Your task to perform on an android device: delete location history Image 0: 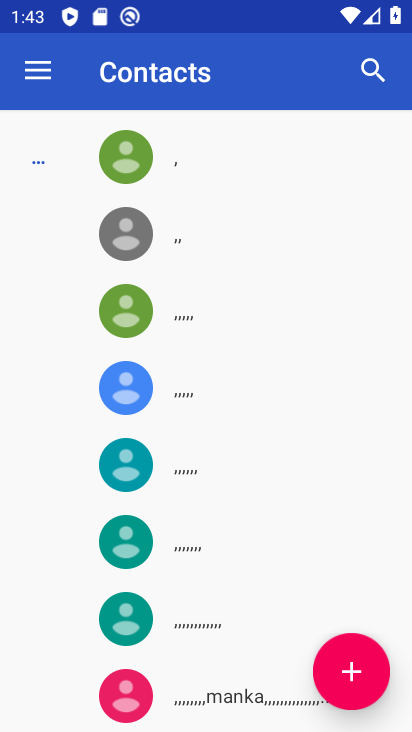
Step 0: press home button
Your task to perform on an android device: delete location history Image 1: 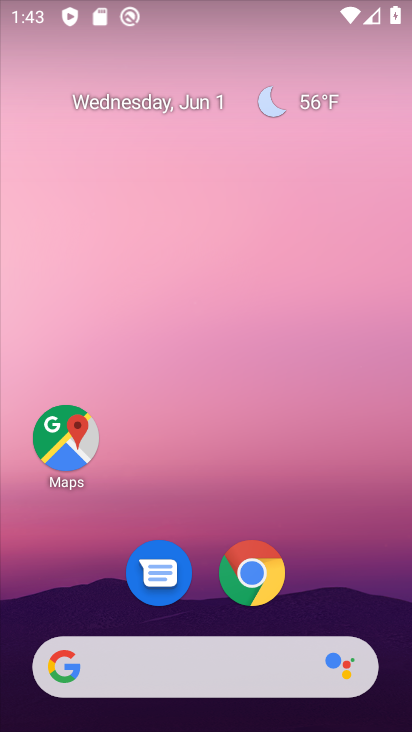
Step 1: drag from (333, 473) to (257, 55)
Your task to perform on an android device: delete location history Image 2: 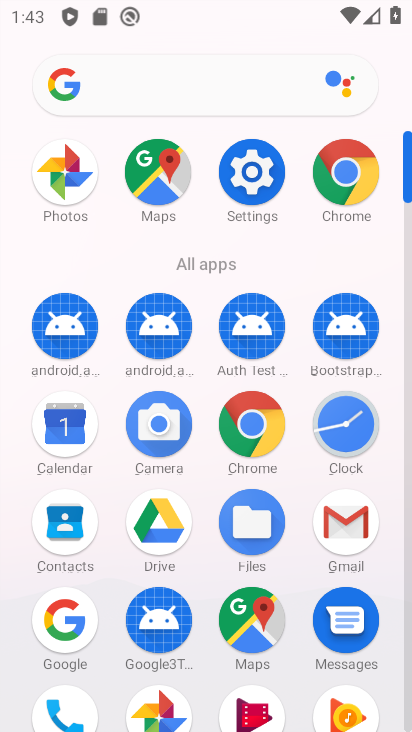
Step 2: click (145, 169)
Your task to perform on an android device: delete location history Image 3: 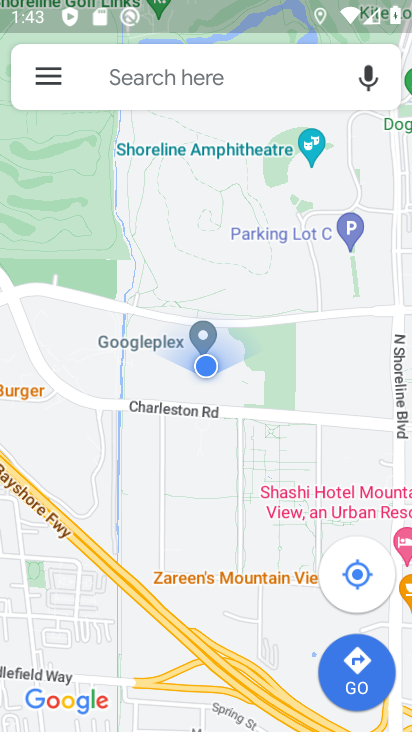
Step 3: click (59, 88)
Your task to perform on an android device: delete location history Image 4: 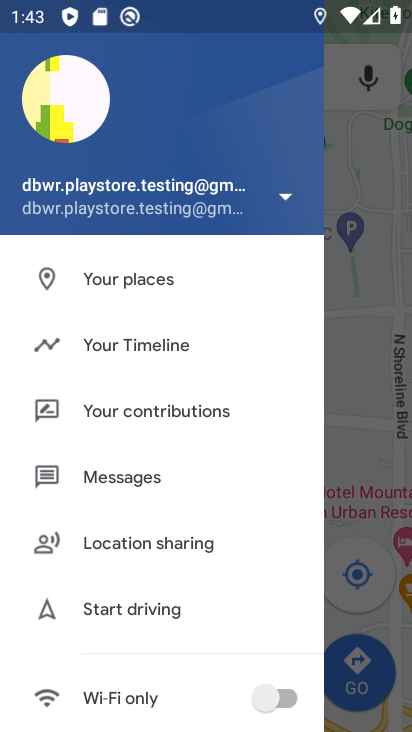
Step 4: click (121, 350)
Your task to perform on an android device: delete location history Image 5: 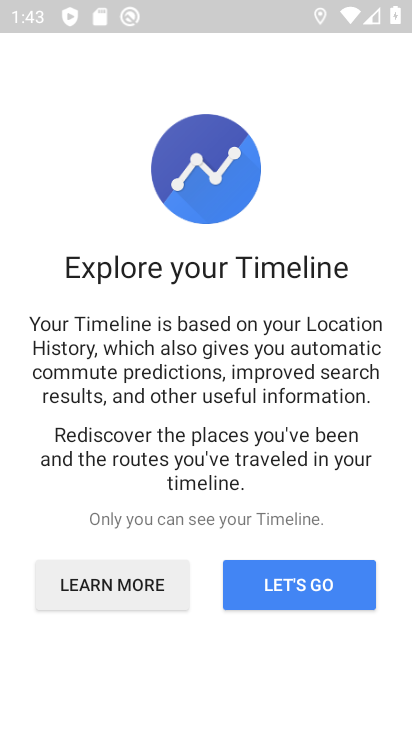
Step 5: drag from (222, 651) to (113, 192)
Your task to perform on an android device: delete location history Image 6: 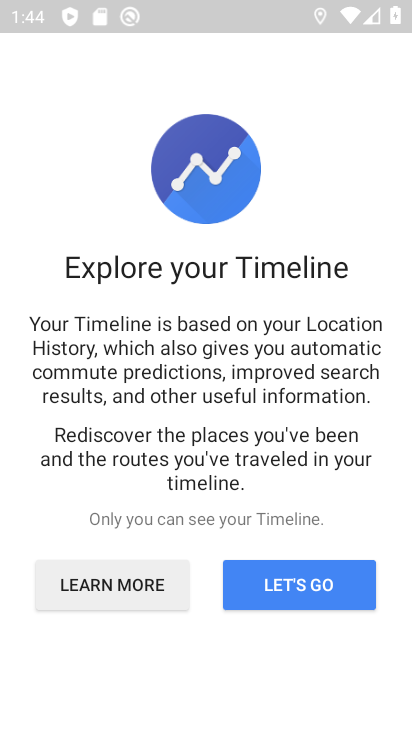
Step 6: click (297, 581)
Your task to perform on an android device: delete location history Image 7: 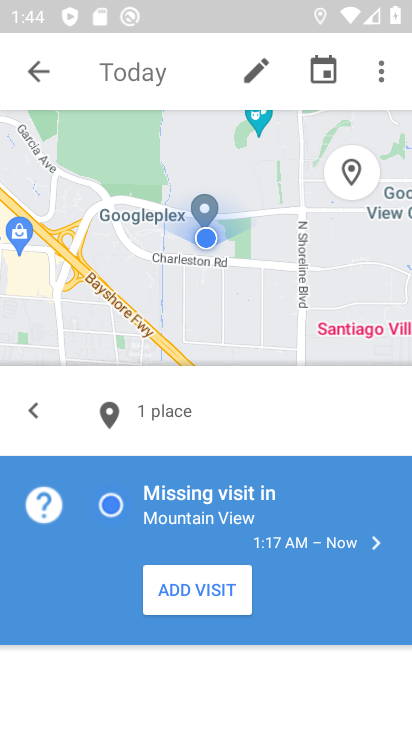
Step 7: click (390, 67)
Your task to perform on an android device: delete location history Image 8: 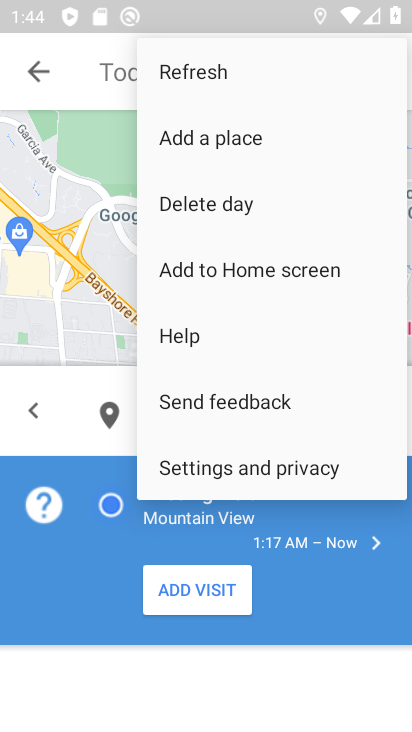
Step 8: click (235, 467)
Your task to perform on an android device: delete location history Image 9: 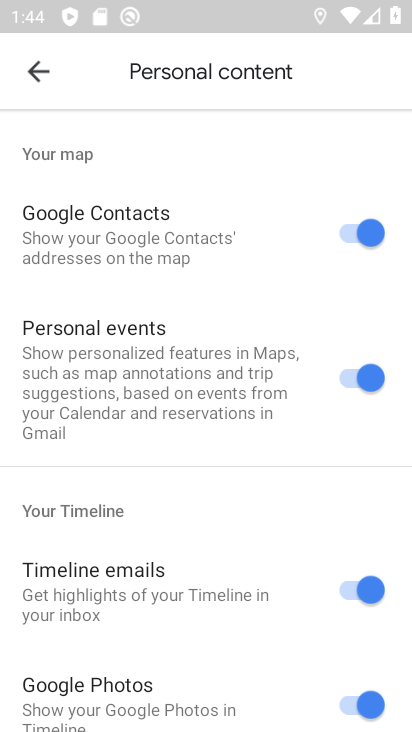
Step 9: drag from (133, 667) to (93, 251)
Your task to perform on an android device: delete location history Image 10: 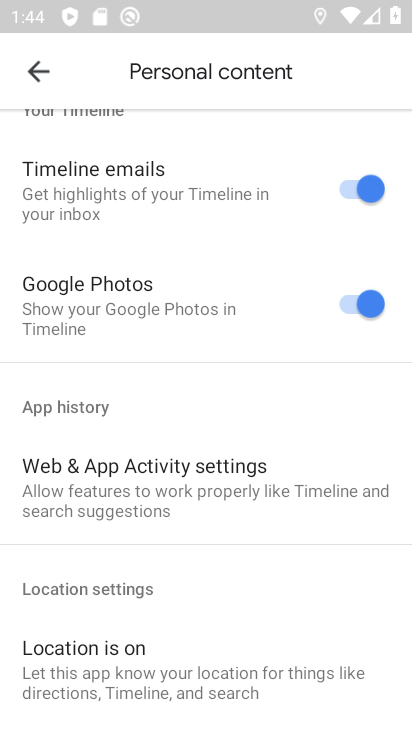
Step 10: drag from (177, 640) to (173, 232)
Your task to perform on an android device: delete location history Image 11: 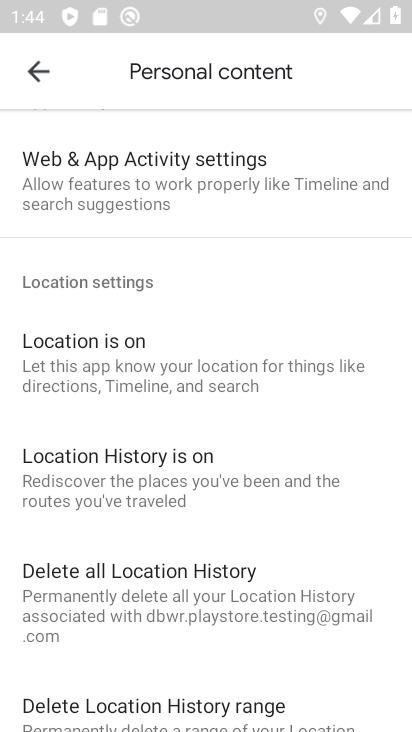
Step 11: click (174, 597)
Your task to perform on an android device: delete location history Image 12: 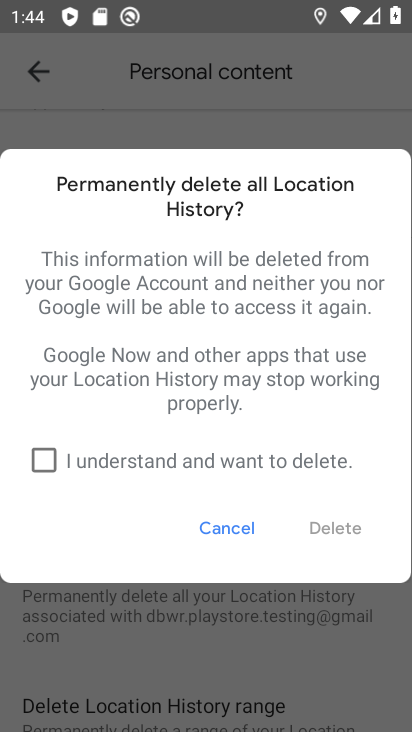
Step 12: click (57, 456)
Your task to perform on an android device: delete location history Image 13: 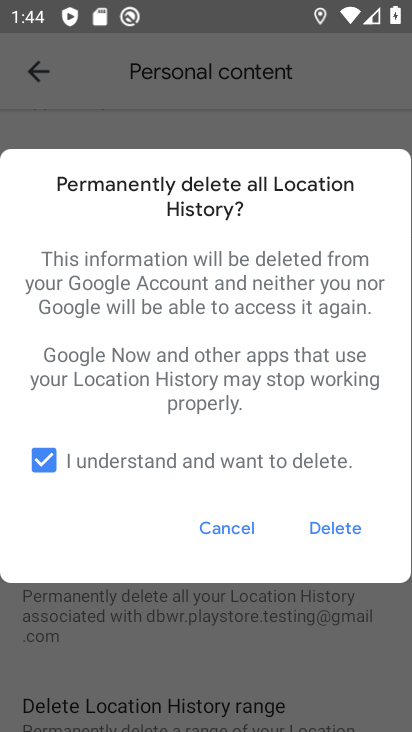
Step 13: click (334, 532)
Your task to perform on an android device: delete location history Image 14: 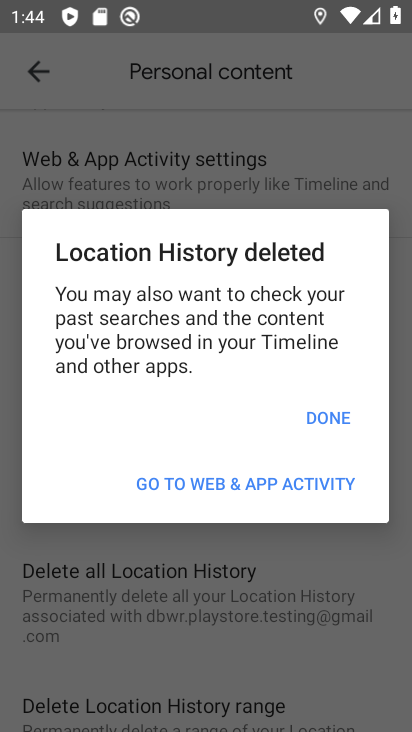
Step 14: task complete